Your task to perform on an android device: Open calendar and show me the second week of next month Image 0: 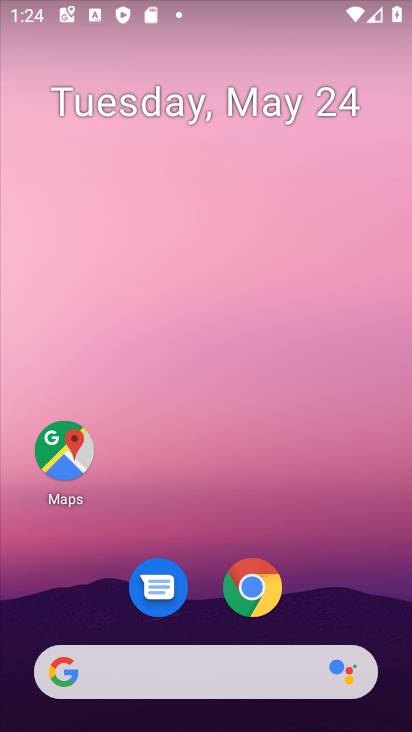
Step 0: drag from (305, 710) to (410, 70)
Your task to perform on an android device: Open calendar and show me the second week of next month Image 1: 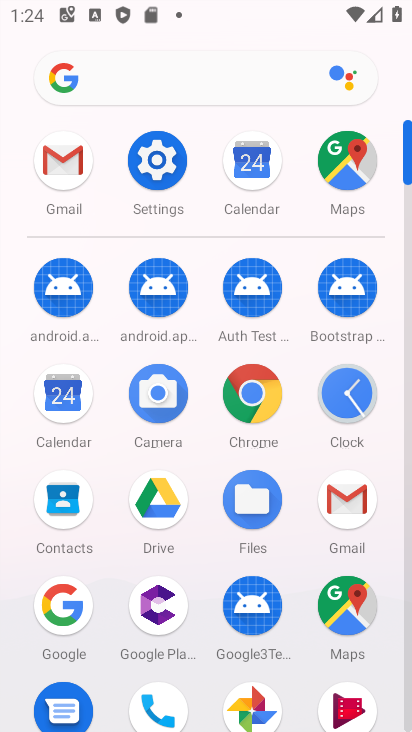
Step 1: click (48, 412)
Your task to perform on an android device: Open calendar and show me the second week of next month Image 2: 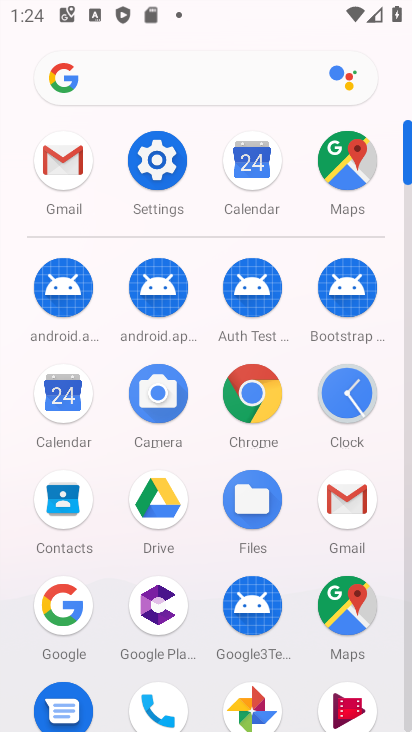
Step 2: click (48, 412)
Your task to perform on an android device: Open calendar and show me the second week of next month Image 3: 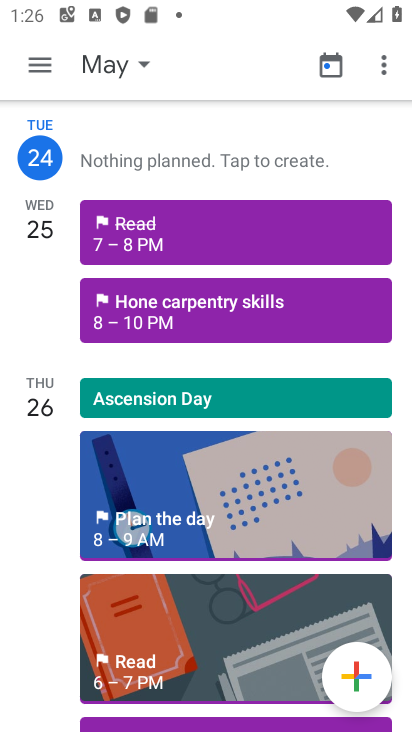
Step 3: click (71, 53)
Your task to perform on an android device: Open calendar and show me the second week of next month Image 4: 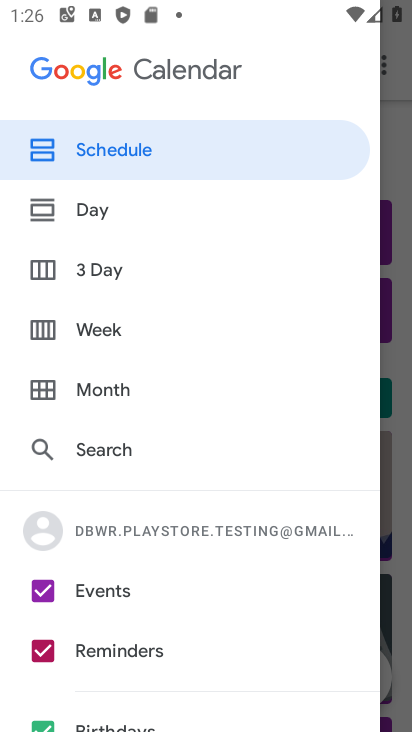
Step 4: click (241, 155)
Your task to perform on an android device: Open calendar and show me the second week of next month Image 5: 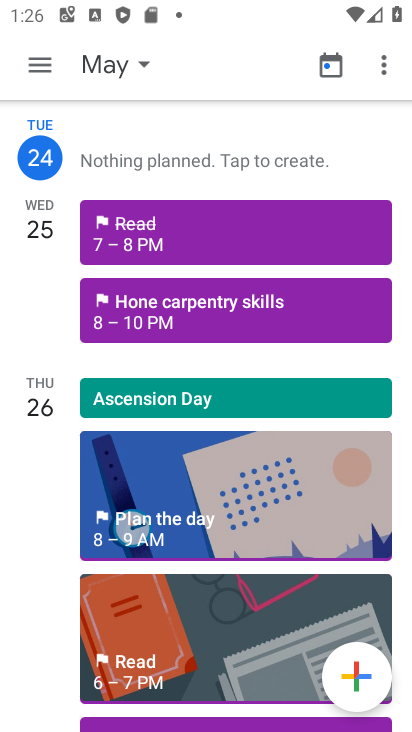
Step 5: click (128, 68)
Your task to perform on an android device: Open calendar and show me the second week of next month Image 6: 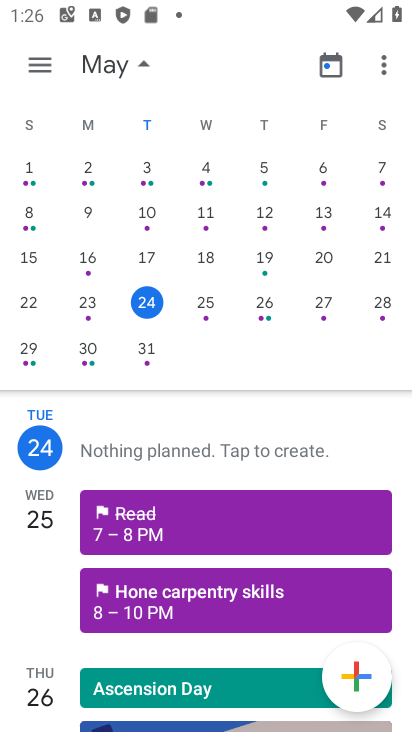
Step 6: drag from (312, 174) to (9, 144)
Your task to perform on an android device: Open calendar and show me the second week of next month Image 7: 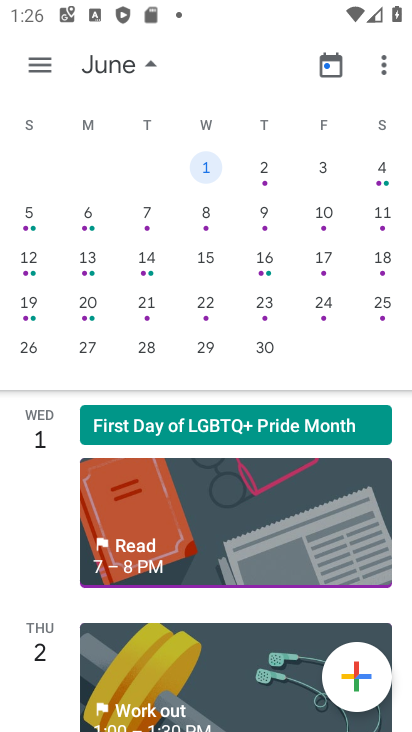
Step 7: click (15, 208)
Your task to perform on an android device: Open calendar and show me the second week of next month Image 8: 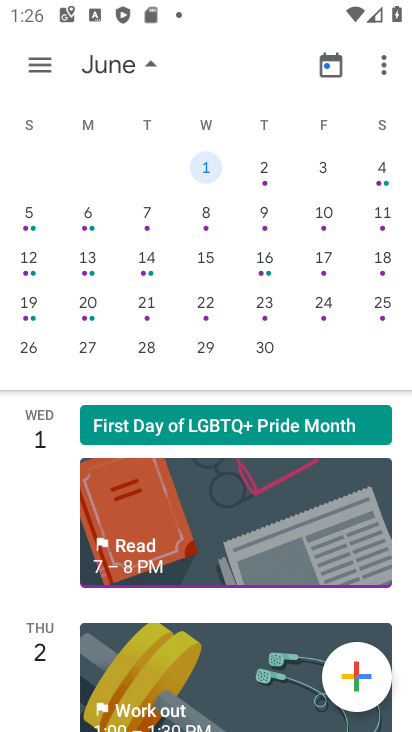
Step 8: click (30, 213)
Your task to perform on an android device: Open calendar and show me the second week of next month Image 9: 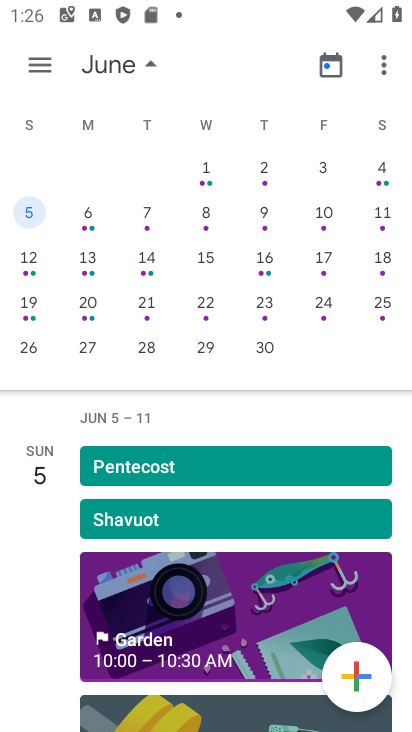
Step 9: click (30, 213)
Your task to perform on an android device: Open calendar and show me the second week of next month Image 10: 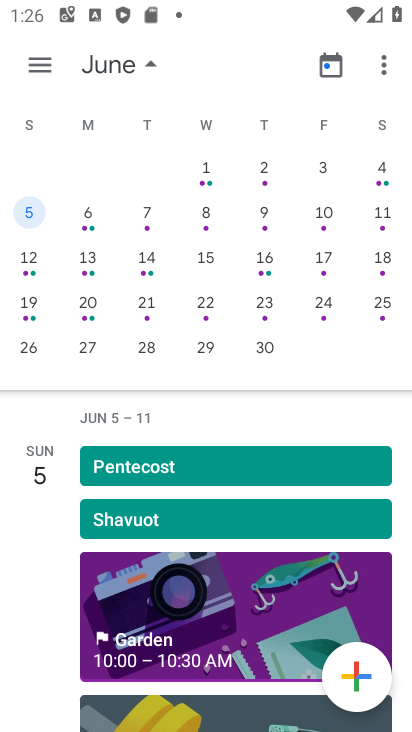
Step 10: task complete